Your task to perform on an android device: Open the calendar app, open the side menu, and click the "Day" option Image 0: 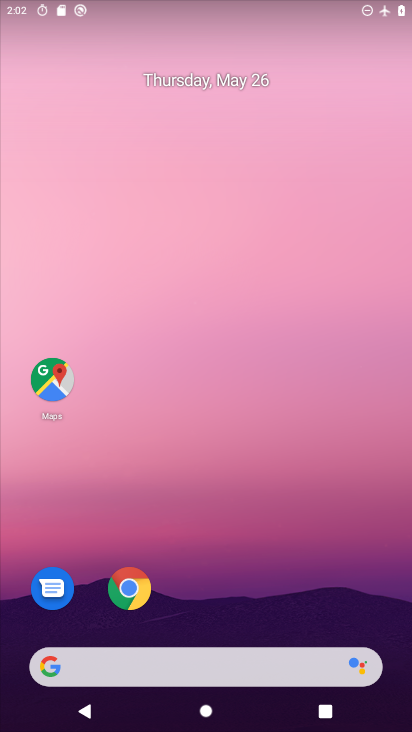
Step 0: drag from (401, 704) to (376, 278)
Your task to perform on an android device: Open the calendar app, open the side menu, and click the "Day" option Image 1: 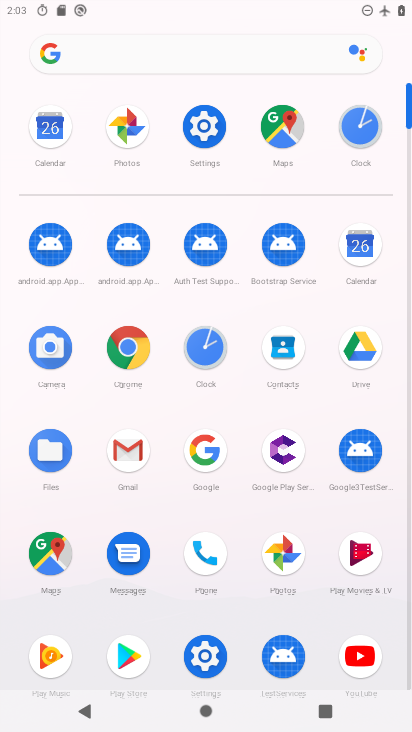
Step 1: click (52, 124)
Your task to perform on an android device: Open the calendar app, open the side menu, and click the "Day" option Image 2: 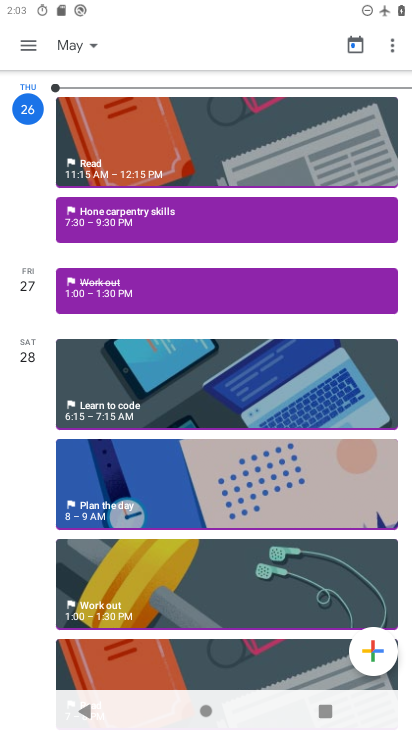
Step 2: click (32, 43)
Your task to perform on an android device: Open the calendar app, open the side menu, and click the "Day" option Image 3: 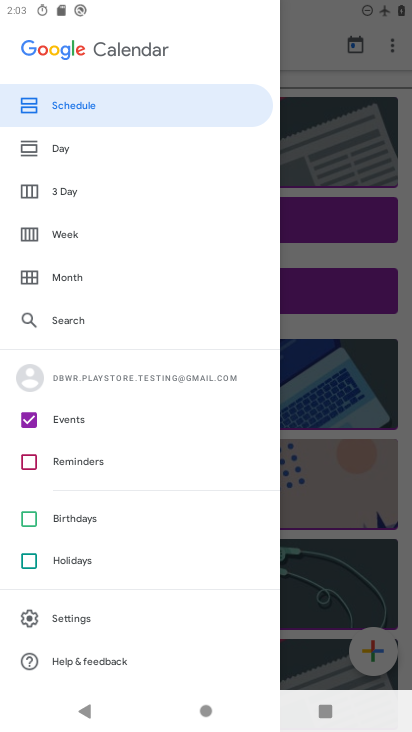
Step 3: click (51, 142)
Your task to perform on an android device: Open the calendar app, open the side menu, and click the "Day" option Image 4: 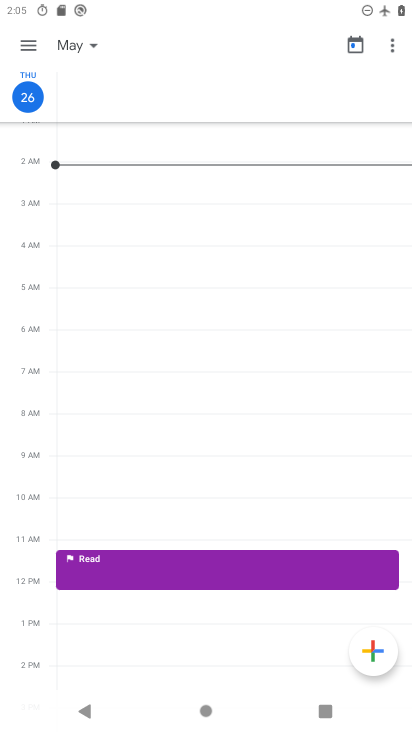
Step 4: task complete